Your task to perform on an android device: Open the phone app and click the voicemail tab. Image 0: 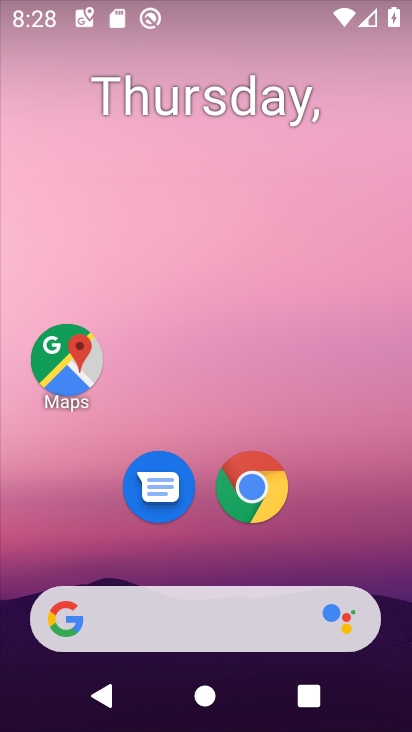
Step 0: drag from (130, 499) to (200, 90)
Your task to perform on an android device: Open the phone app and click the voicemail tab. Image 1: 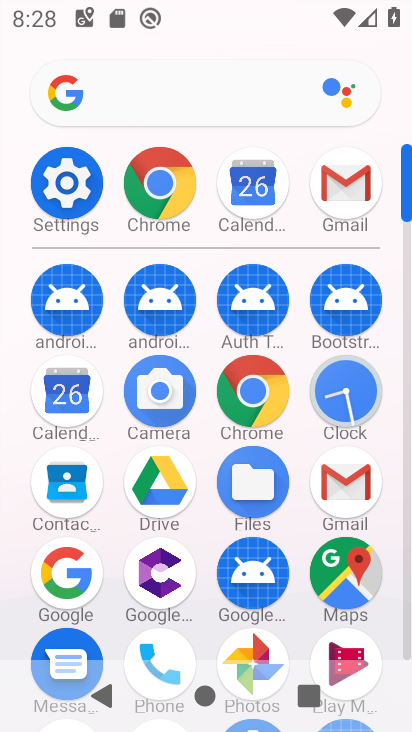
Step 1: click (151, 646)
Your task to perform on an android device: Open the phone app and click the voicemail tab. Image 2: 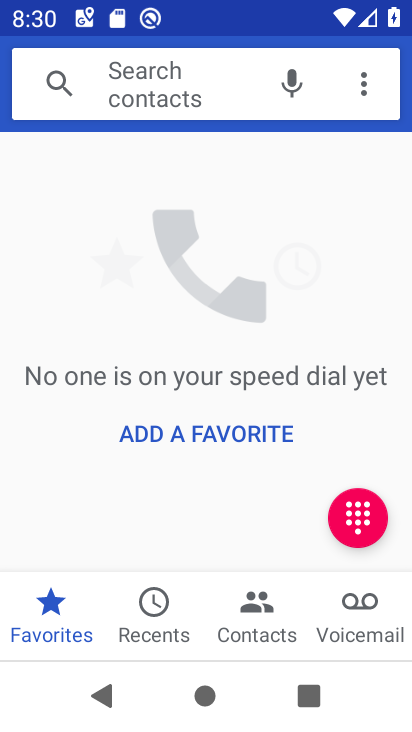
Step 2: click (348, 613)
Your task to perform on an android device: Open the phone app and click the voicemail tab. Image 3: 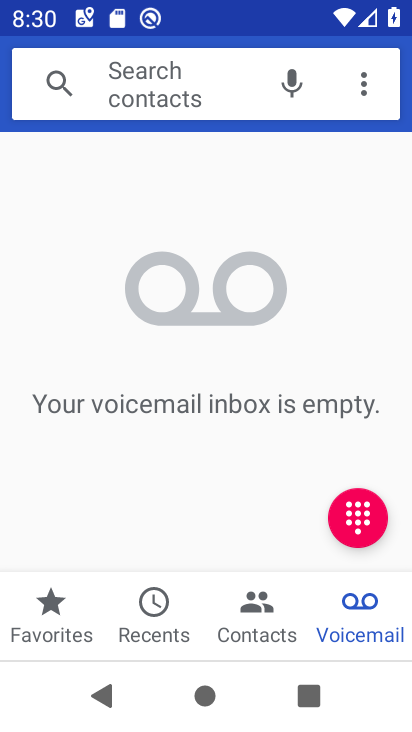
Step 3: task complete